Your task to perform on an android device: turn off improve location accuracy Image 0: 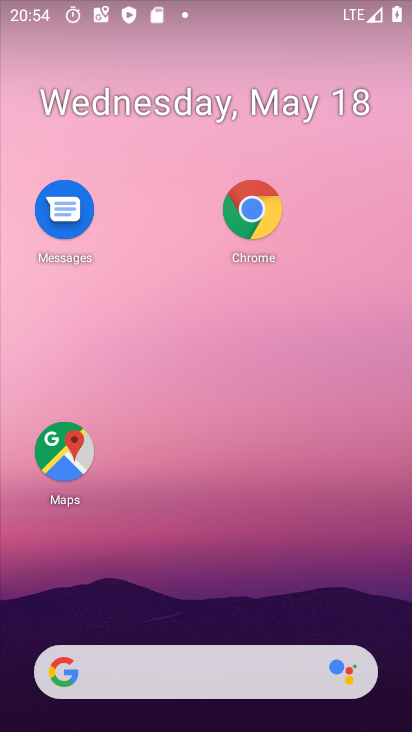
Step 0: drag from (158, 649) to (146, 49)
Your task to perform on an android device: turn off improve location accuracy Image 1: 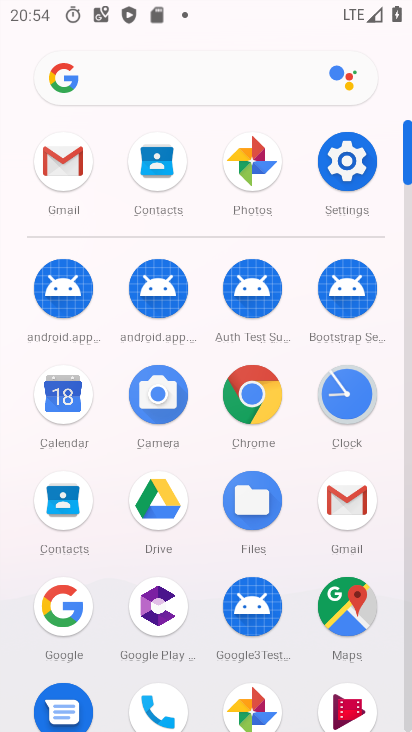
Step 1: click (358, 151)
Your task to perform on an android device: turn off improve location accuracy Image 2: 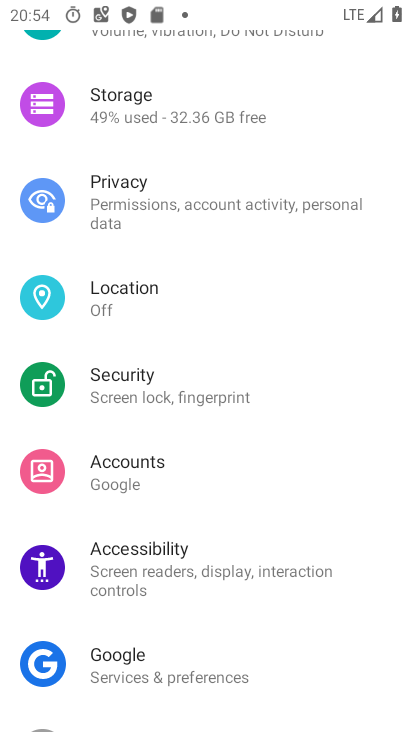
Step 2: click (78, 323)
Your task to perform on an android device: turn off improve location accuracy Image 3: 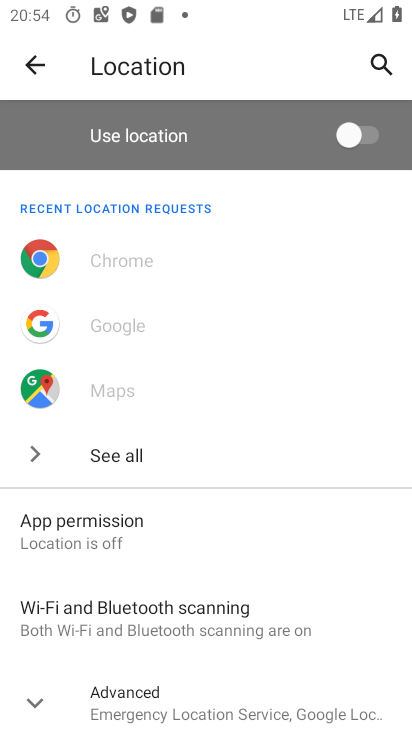
Step 3: click (102, 680)
Your task to perform on an android device: turn off improve location accuracy Image 4: 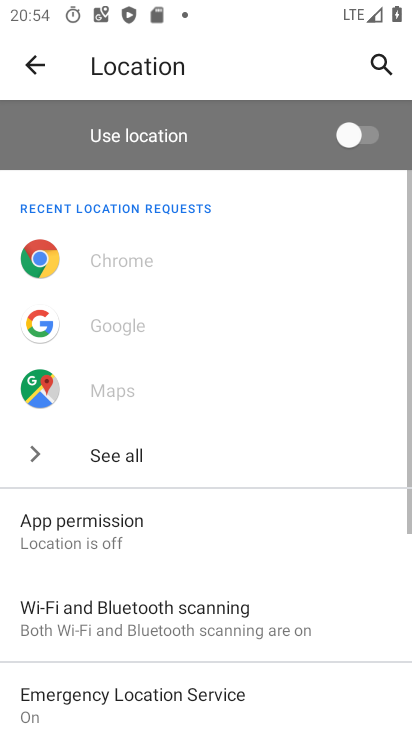
Step 4: drag from (102, 680) to (148, 197)
Your task to perform on an android device: turn off improve location accuracy Image 5: 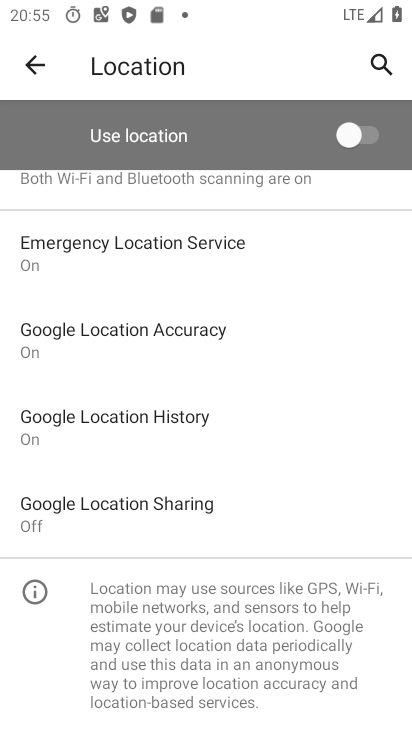
Step 5: click (121, 334)
Your task to perform on an android device: turn off improve location accuracy Image 6: 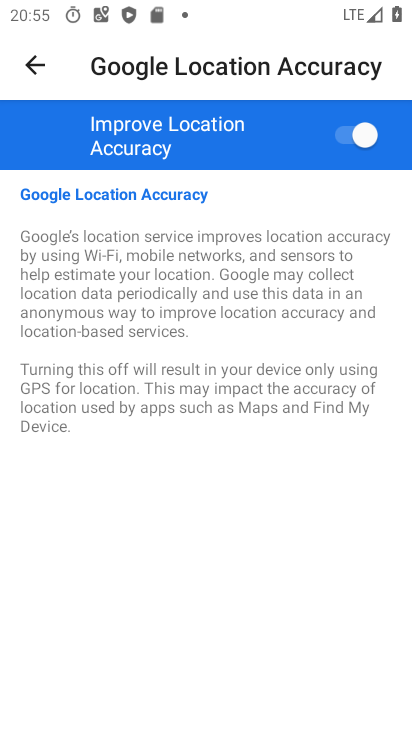
Step 6: click (356, 147)
Your task to perform on an android device: turn off improve location accuracy Image 7: 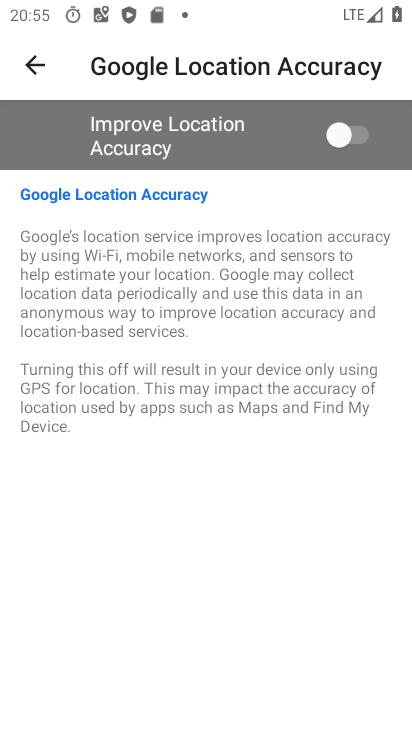
Step 7: task complete